Your task to perform on an android device: turn pop-ups on in chrome Image 0: 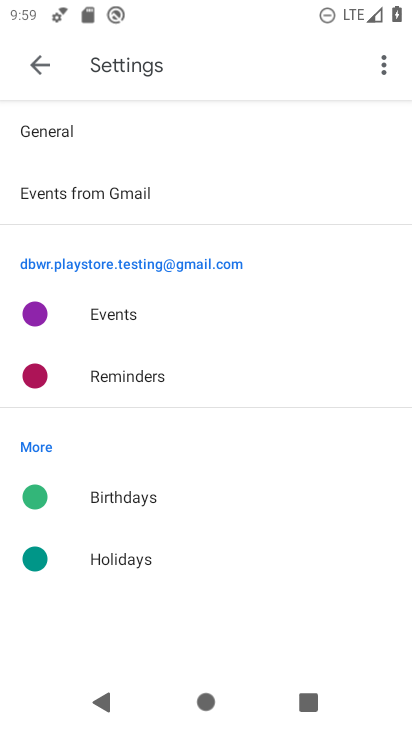
Step 0: press home button
Your task to perform on an android device: turn pop-ups on in chrome Image 1: 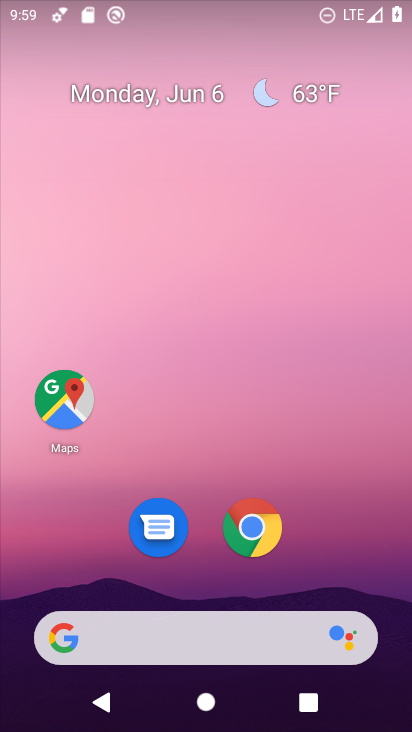
Step 1: drag from (368, 567) to (369, 150)
Your task to perform on an android device: turn pop-ups on in chrome Image 2: 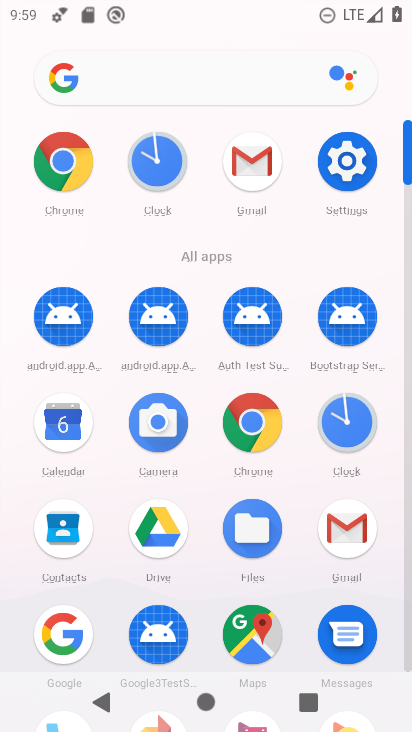
Step 2: click (253, 428)
Your task to perform on an android device: turn pop-ups on in chrome Image 3: 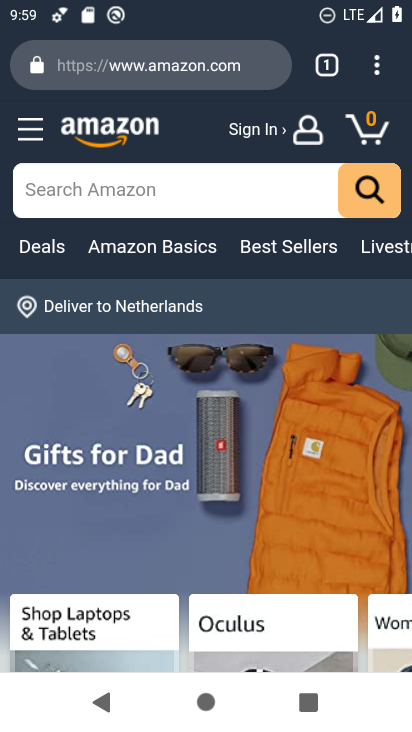
Step 3: click (375, 81)
Your task to perform on an android device: turn pop-ups on in chrome Image 4: 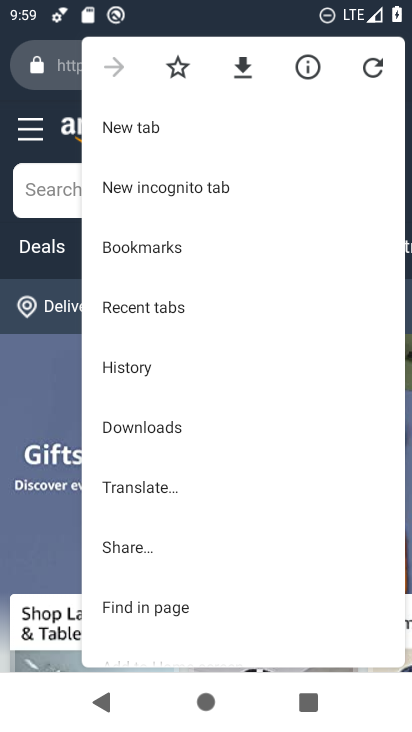
Step 4: drag from (290, 485) to (320, 366)
Your task to perform on an android device: turn pop-ups on in chrome Image 5: 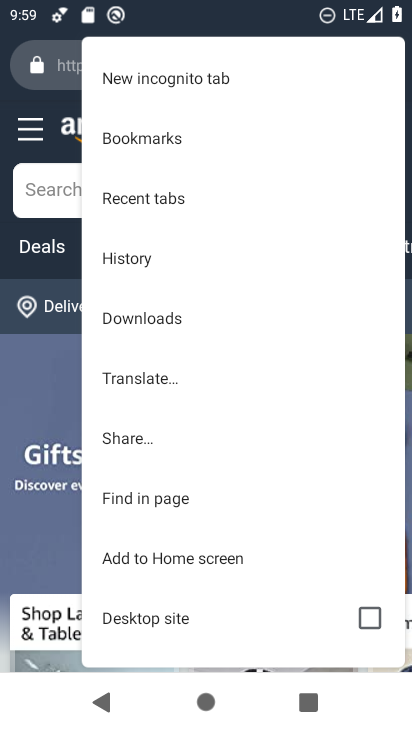
Step 5: drag from (315, 541) to (341, 372)
Your task to perform on an android device: turn pop-ups on in chrome Image 6: 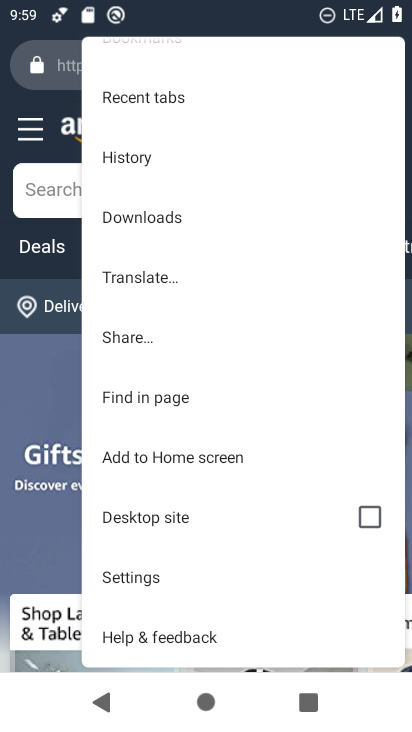
Step 6: drag from (282, 503) to (312, 309)
Your task to perform on an android device: turn pop-ups on in chrome Image 7: 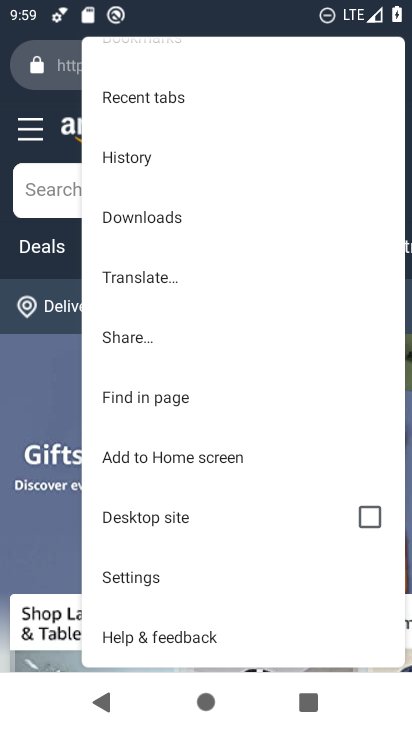
Step 7: drag from (312, 165) to (312, 311)
Your task to perform on an android device: turn pop-ups on in chrome Image 8: 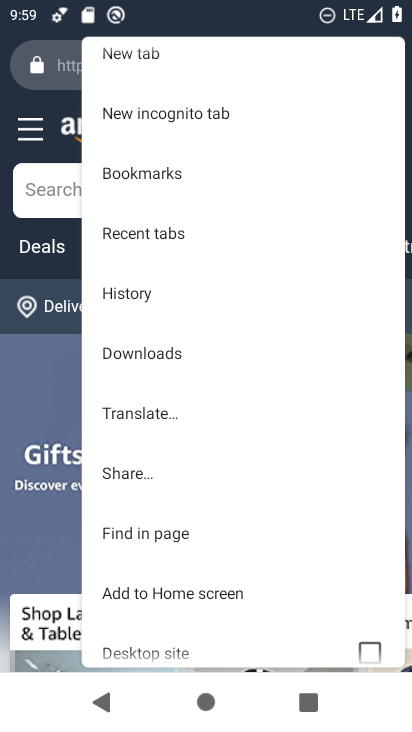
Step 8: drag from (310, 207) to (308, 318)
Your task to perform on an android device: turn pop-ups on in chrome Image 9: 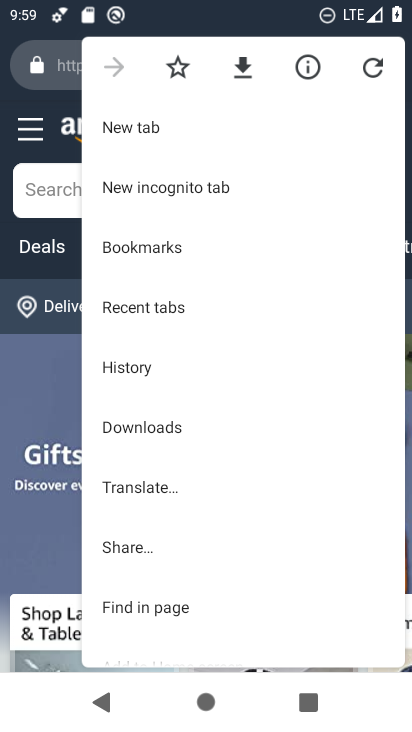
Step 9: drag from (299, 422) to (301, 301)
Your task to perform on an android device: turn pop-ups on in chrome Image 10: 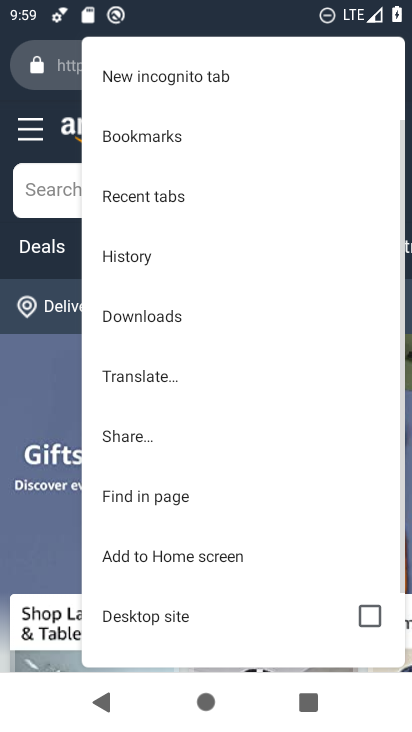
Step 10: drag from (288, 441) to (301, 307)
Your task to perform on an android device: turn pop-ups on in chrome Image 11: 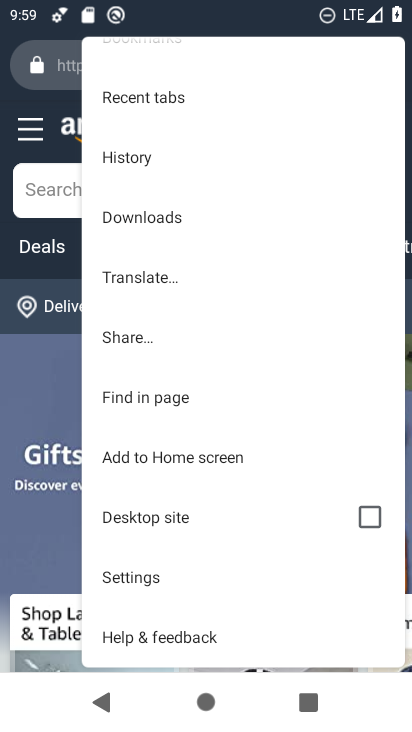
Step 11: click (160, 584)
Your task to perform on an android device: turn pop-ups on in chrome Image 12: 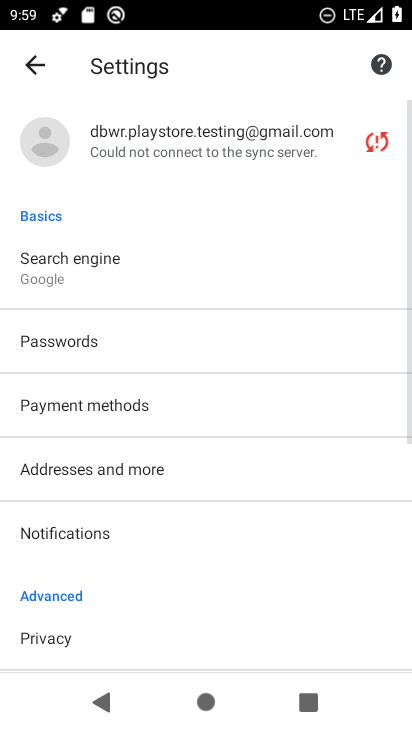
Step 12: drag from (324, 522) to (323, 403)
Your task to perform on an android device: turn pop-ups on in chrome Image 13: 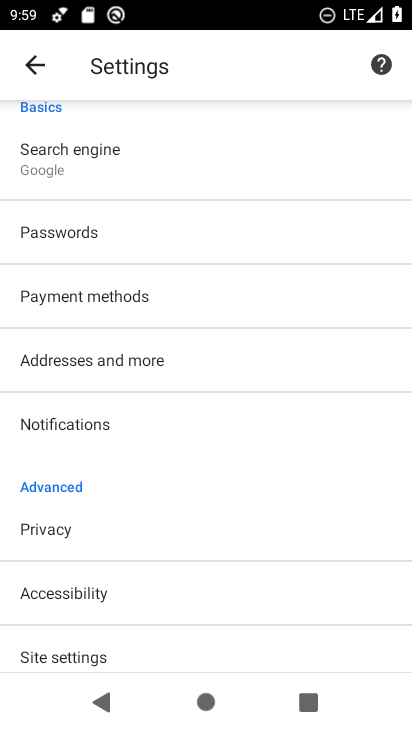
Step 13: drag from (296, 533) to (303, 408)
Your task to perform on an android device: turn pop-ups on in chrome Image 14: 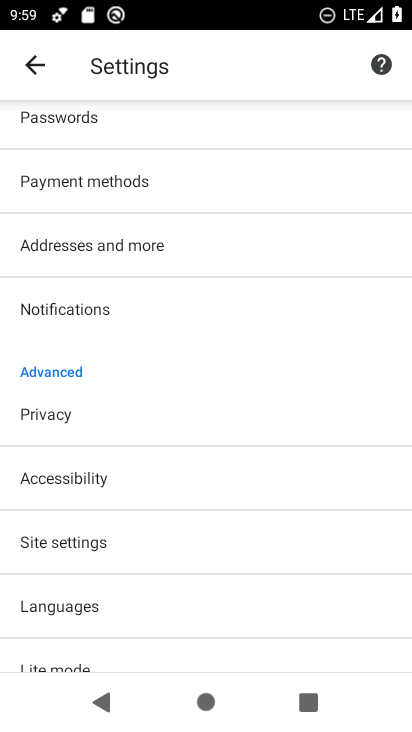
Step 14: drag from (298, 583) to (319, 435)
Your task to perform on an android device: turn pop-ups on in chrome Image 15: 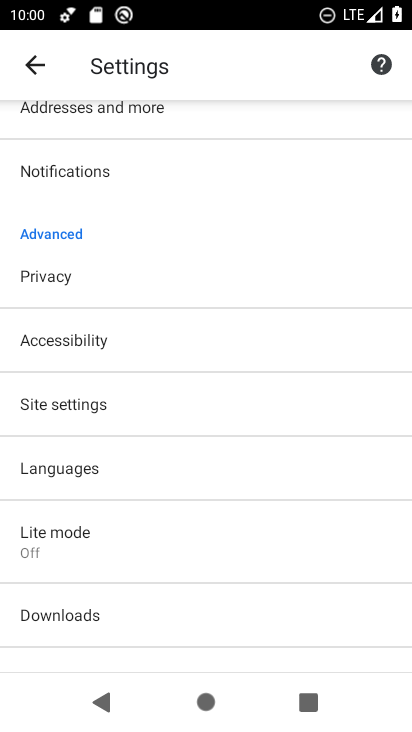
Step 15: click (261, 415)
Your task to perform on an android device: turn pop-ups on in chrome Image 16: 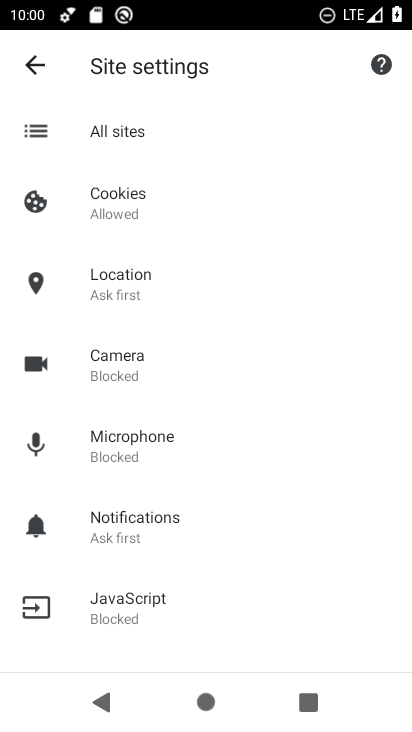
Step 16: drag from (310, 532) to (330, 424)
Your task to perform on an android device: turn pop-ups on in chrome Image 17: 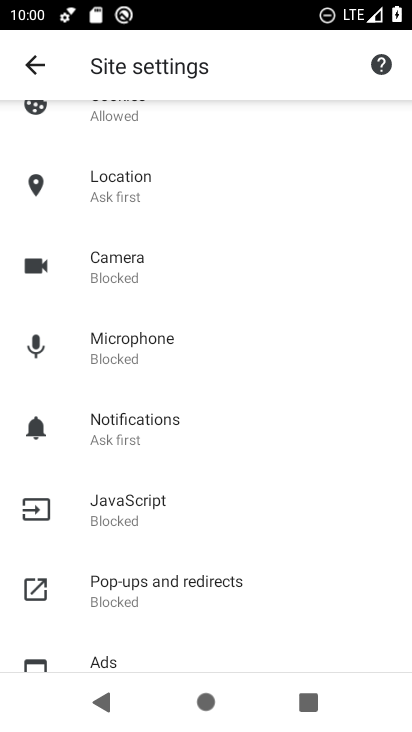
Step 17: drag from (301, 571) to (339, 409)
Your task to perform on an android device: turn pop-ups on in chrome Image 18: 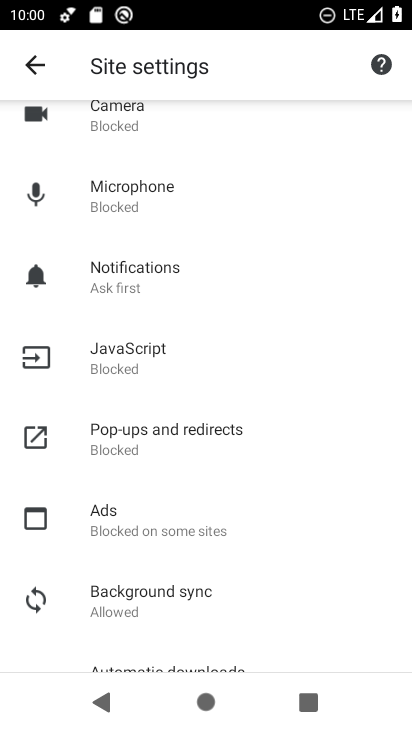
Step 18: click (249, 424)
Your task to perform on an android device: turn pop-ups on in chrome Image 19: 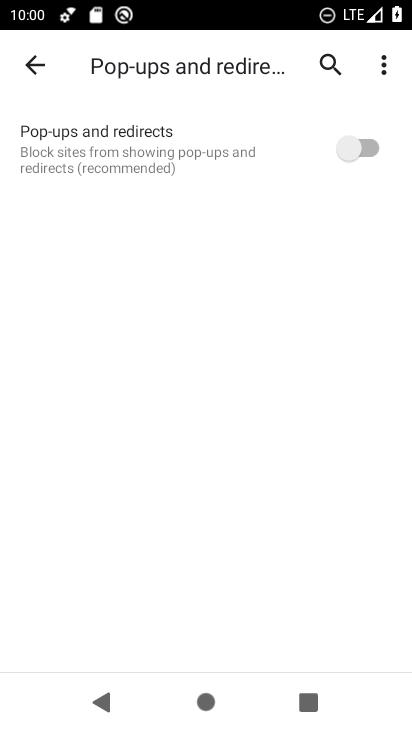
Step 19: click (369, 146)
Your task to perform on an android device: turn pop-ups on in chrome Image 20: 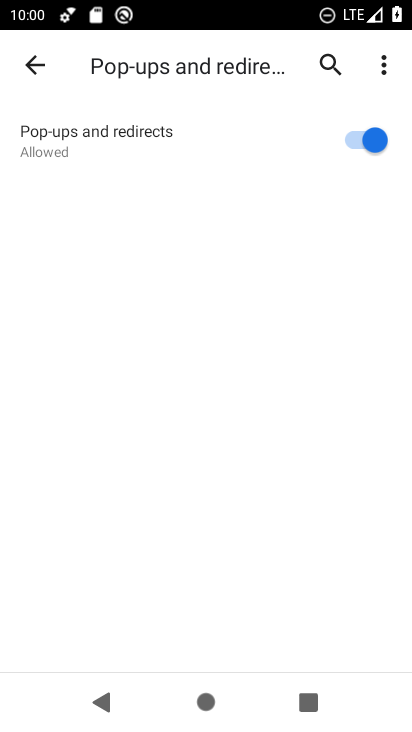
Step 20: task complete